Your task to perform on an android device: open app "Paramount+ | Peak Streaming" (install if not already installed) and enter user name: "fostered@yahoo.com" and password: "strong" Image 0: 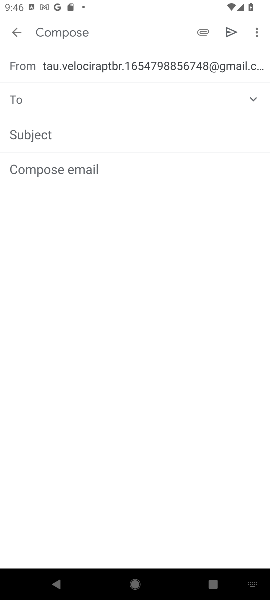
Step 0: press home button
Your task to perform on an android device: open app "Paramount+ | Peak Streaming" (install if not already installed) and enter user name: "fostered@yahoo.com" and password: "strong" Image 1: 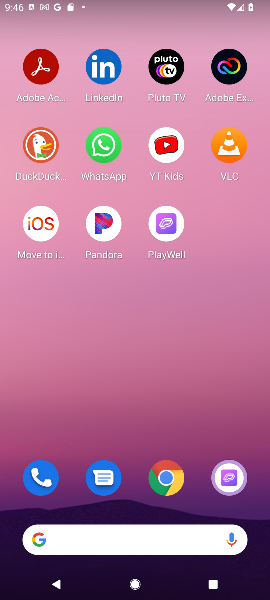
Step 1: drag from (138, 508) to (150, 70)
Your task to perform on an android device: open app "Paramount+ | Peak Streaming" (install if not already installed) and enter user name: "fostered@yahoo.com" and password: "strong" Image 2: 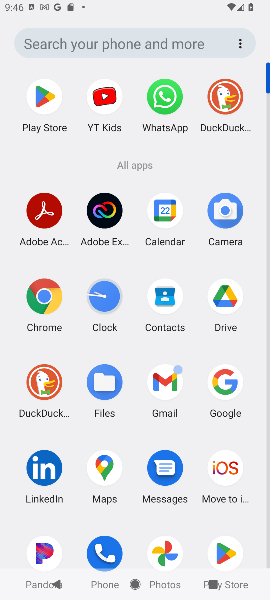
Step 2: click (50, 101)
Your task to perform on an android device: open app "Paramount+ | Peak Streaming" (install if not already installed) and enter user name: "fostered@yahoo.com" and password: "strong" Image 3: 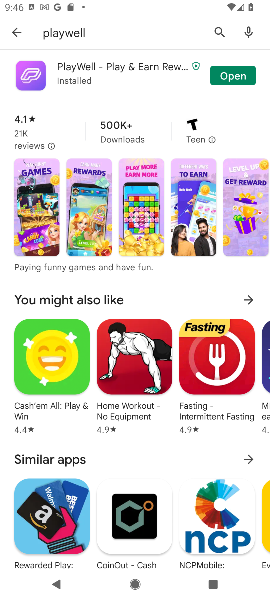
Step 3: click (222, 33)
Your task to perform on an android device: open app "Paramount+ | Peak Streaming" (install if not already installed) and enter user name: "fostered@yahoo.com" and password: "strong" Image 4: 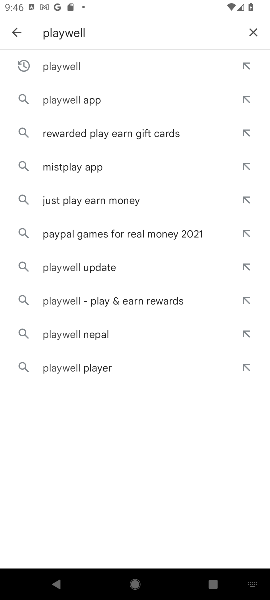
Step 4: type "paramount"
Your task to perform on an android device: open app "Paramount+ | Peak Streaming" (install if not already installed) and enter user name: "fostered@yahoo.com" and password: "strong" Image 5: 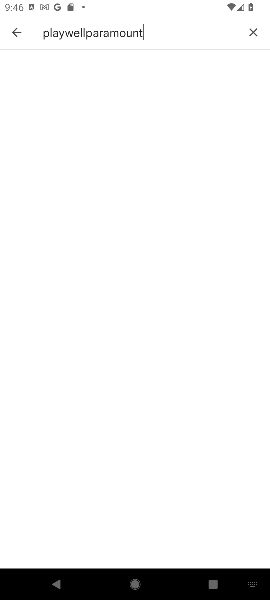
Step 5: click (252, 30)
Your task to perform on an android device: open app "Paramount+ | Peak Streaming" (install if not already installed) and enter user name: "fostered@yahoo.com" and password: "strong" Image 6: 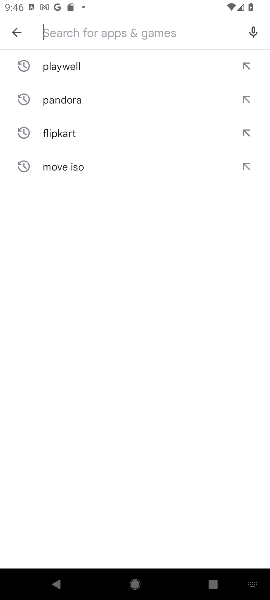
Step 6: type "paramount"
Your task to perform on an android device: open app "Paramount+ | Peak Streaming" (install if not already installed) and enter user name: "fostered@yahoo.com" and password: "strong" Image 7: 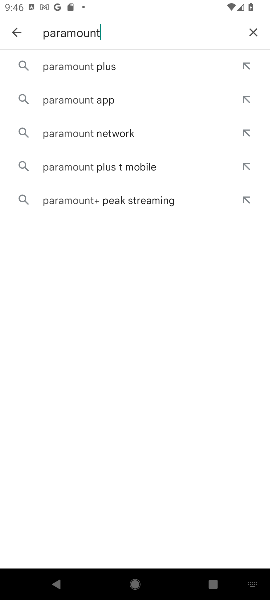
Step 7: click (86, 57)
Your task to perform on an android device: open app "Paramount+ | Peak Streaming" (install if not already installed) and enter user name: "fostered@yahoo.com" and password: "strong" Image 8: 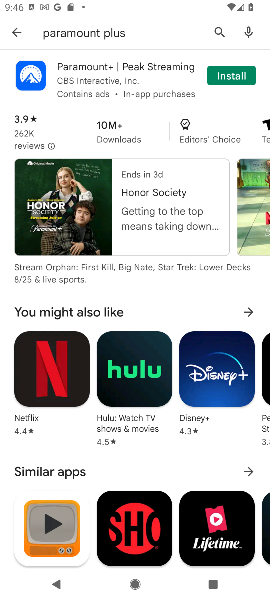
Step 8: click (230, 81)
Your task to perform on an android device: open app "Paramount+ | Peak Streaming" (install if not already installed) and enter user name: "fostered@yahoo.com" and password: "strong" Image 9: 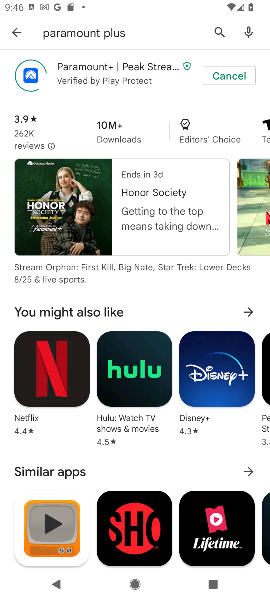
Step 9: task complete